Your task to perform on an android device: check android version Image 0: 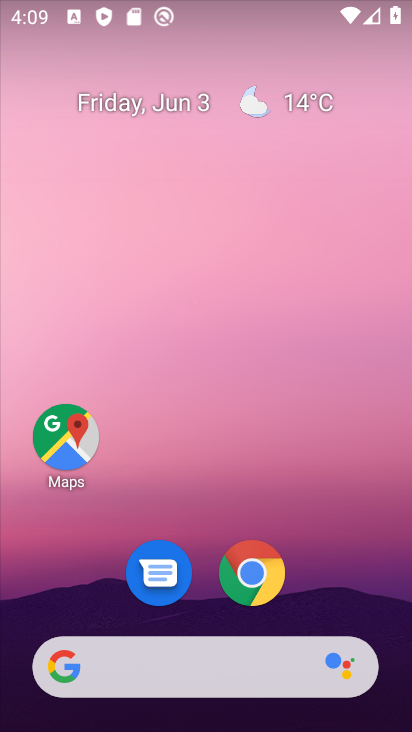
Step 0: drag from (230, 569) to (181, 35)
Your task to perform on an android device: check android version Image 1: 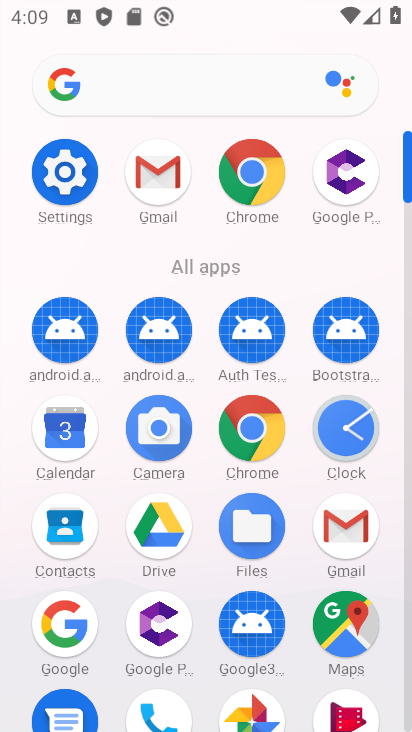
Step 1: click (50, 192)
Your task to perform on an android device: check android version Image 2: 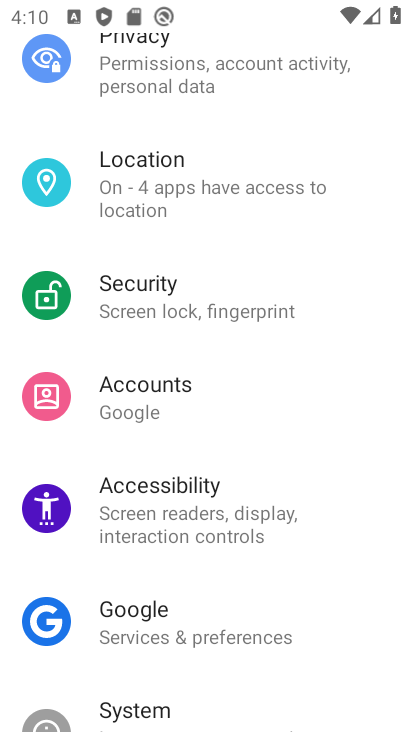
Step 2: drag from (308, 652) to (256, 12)
Your task to perform on an android device: check android version Image 3: 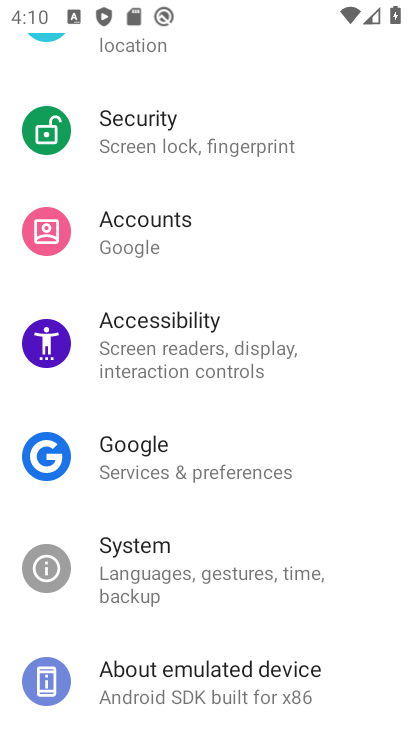
Step 3: click (309, 692)
Your task to perform on an android device: check android version Image 4: 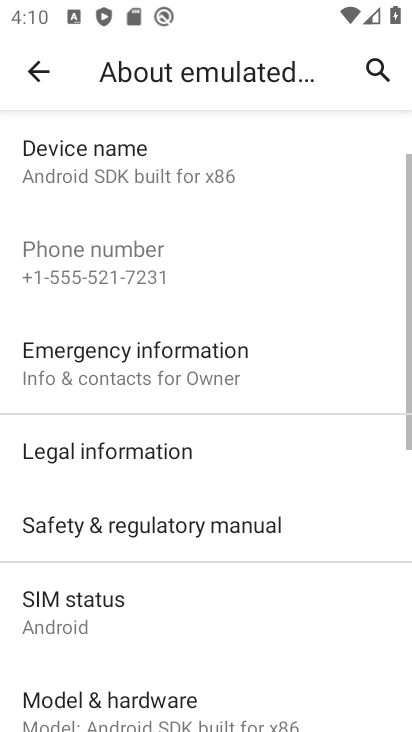
Step 4: task complete